Your task to perform on an android device: set default search engine in the chrome app Image 0: 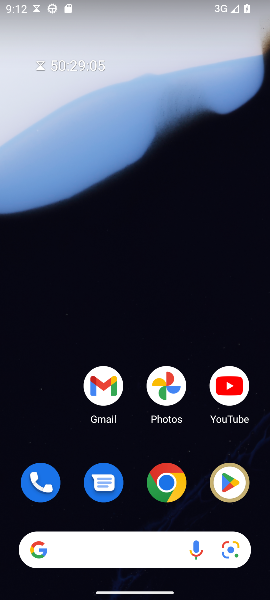
Step 0: drag from (22, 428) to (70, 104)
Your task to perform on an android device: set default search engine in the chrome app Image 1: 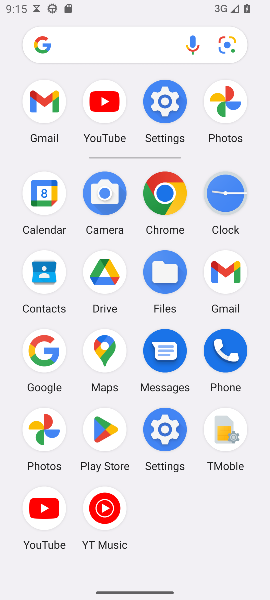
Step 1: click (161, 192)
Your task to perform on an android device: set default search engine in the chrome app Image 2: 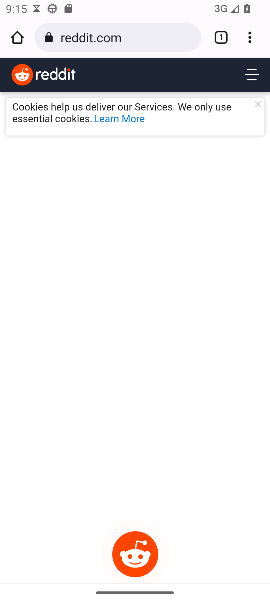
Step 2: drag from (252, 35) to (142, 529)
Your task to perform on an android device: set default search engine in the chrome app Image 3: 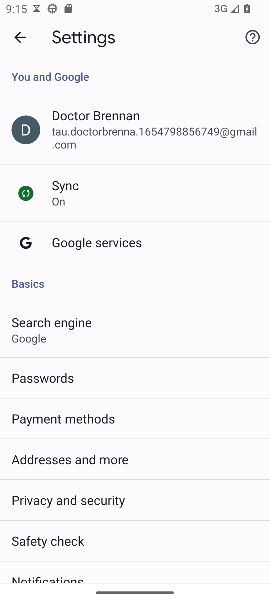
Step 3: click (81, 337)
Your task to perform on an android device: set default search engine in the chrome app Image 4: 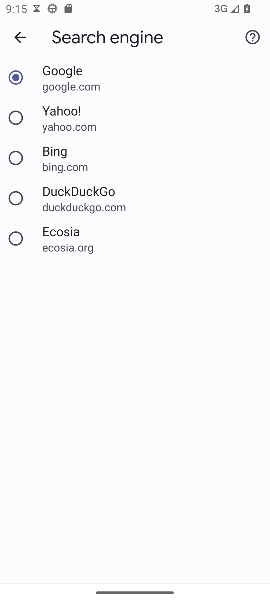
Step 4: task complete